Your task to perform on an android device: turn off translation in the chrome app Image 0: 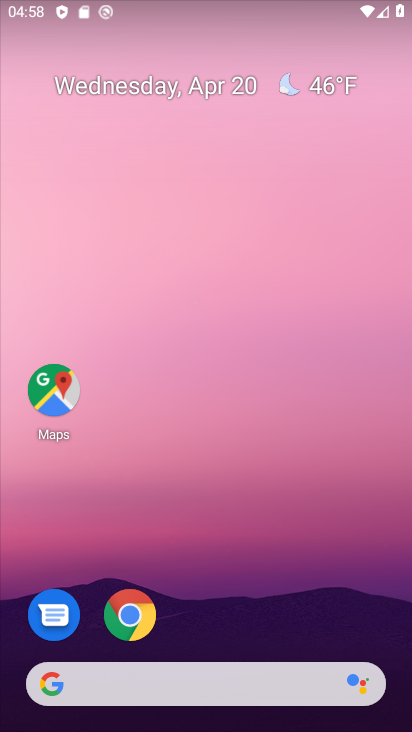
Step 0: drag from (211, 459) to (253, 154)
Your task to perform on an android device: turn off translation in the chrome app Image 1: 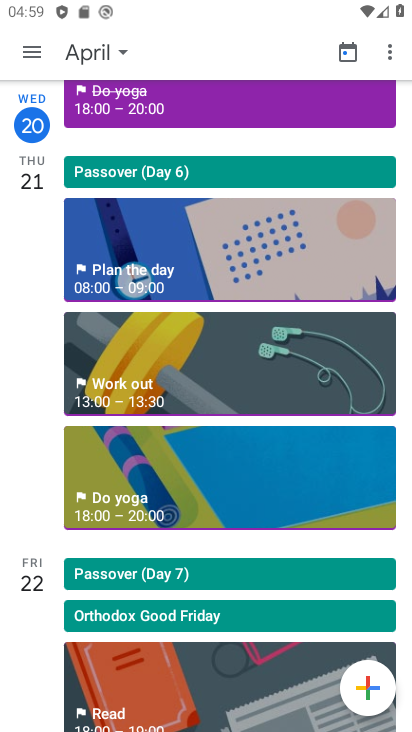
Step 1: click (390, 51)
Your task to perform on an android device: turn off translation in the chrome app Image 2: 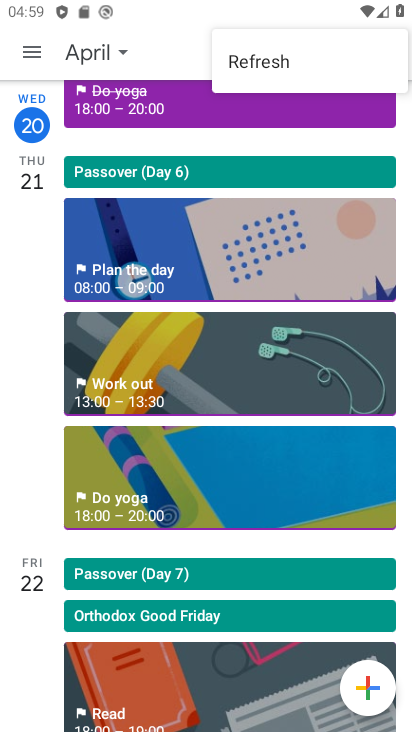
Step 2: click (162, 54)
Your task to perform on an android device: turn off translation in the chrome app Image 3: 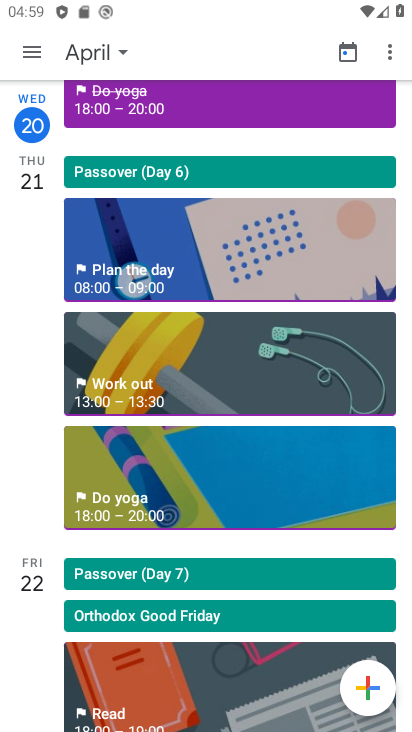
Step 3: press back button
Your task to perform on an android device: turn off translation in the chrome app Image 4: 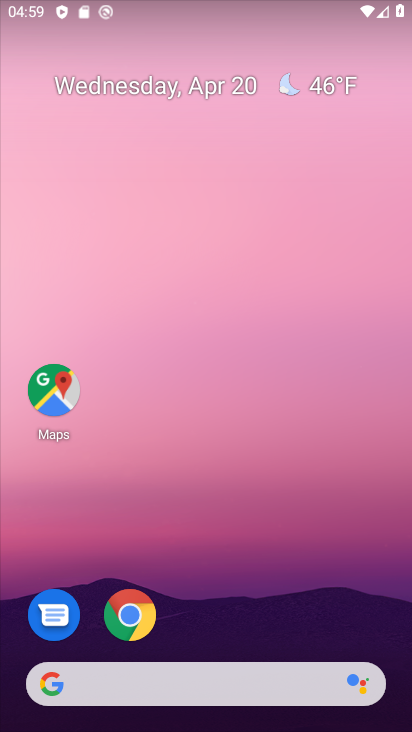
Step 4: click (137, 608)
Your task to perform on an android device: turn off translation in the chrome app Image 5: 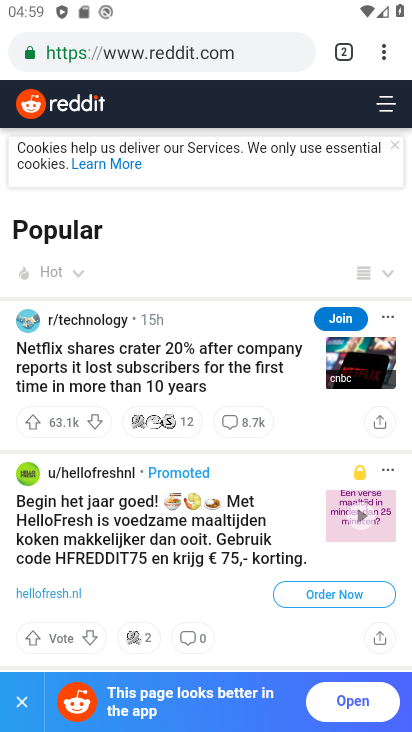
Step 5: drag from (385, 37) to (222, 640)
Your task to perform on an android device: turn off translation in the chrome app Image 6: 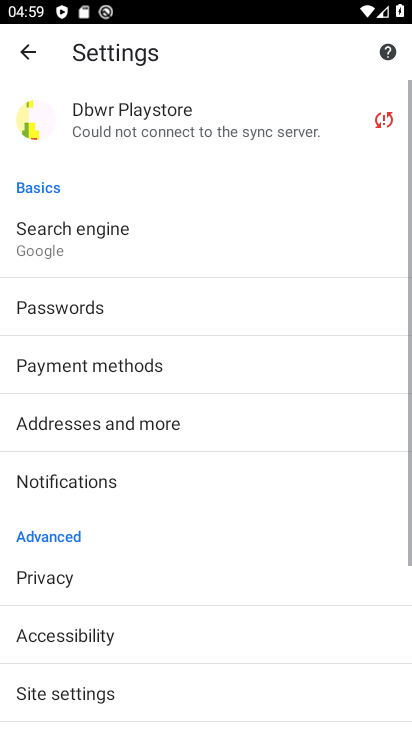
Step 6: drag from (199, 618) to (258, 111)
Your task to perform on an android device: turn off translation in the chrome app Image 7: 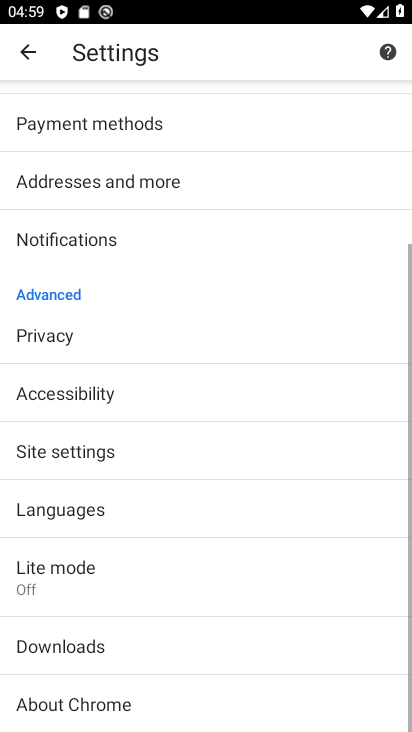
Step 7: click (70, 445)
Your task to perform on an android device: turn off translation in the chrome app Image 8: 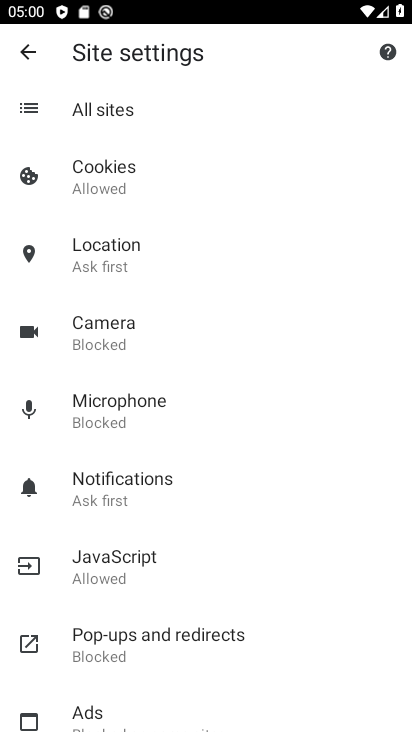
Step 8: drag from (156, 683) to (290, 121)
Your task to perform on an android device: turn off translation in the chrome app Image 9: 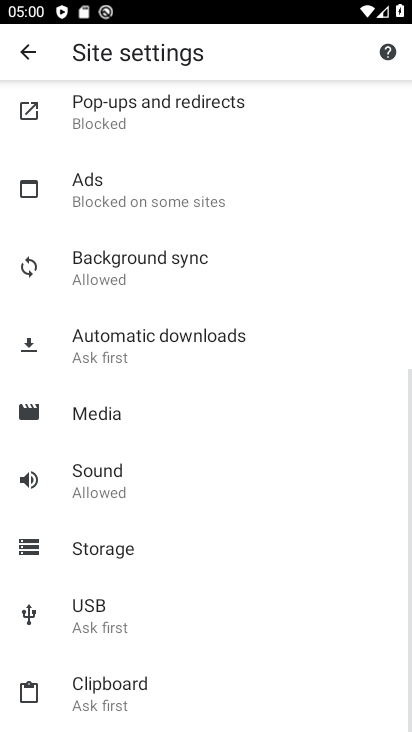
Step 9: click (35, 48)
Your task to perform on an android device: turn off translation in the chrome app Image 10: 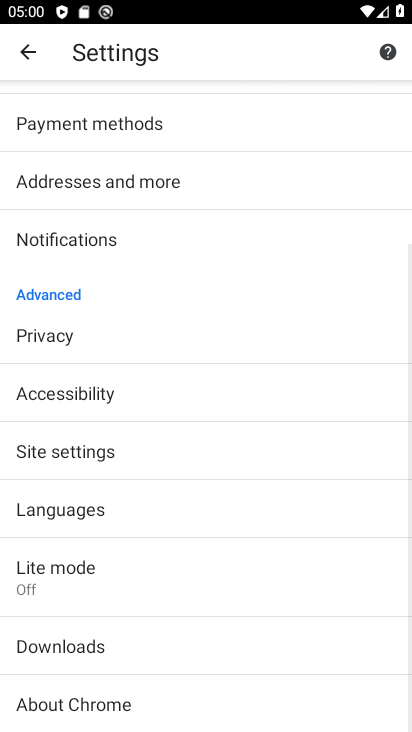
Step 10: click (63, 513)
Your task to perform on an android device: turn off translation in the chrome app Image 11: 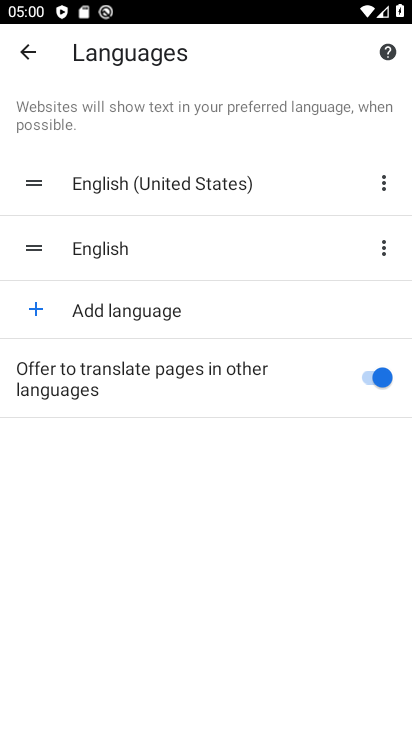
Step 11: click (384, 376)
Your task to perform on an android device: turn off translation in the chrome app Image 12: 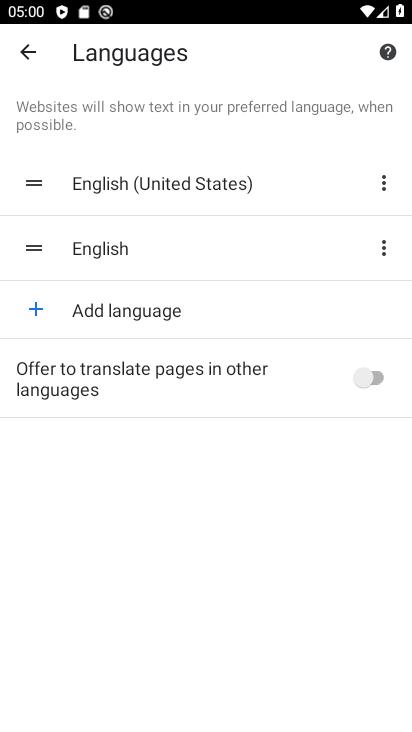
Step 12: task complete